Your task to perform on an android device: Search for Mexican restaurants on Maps Image 0: 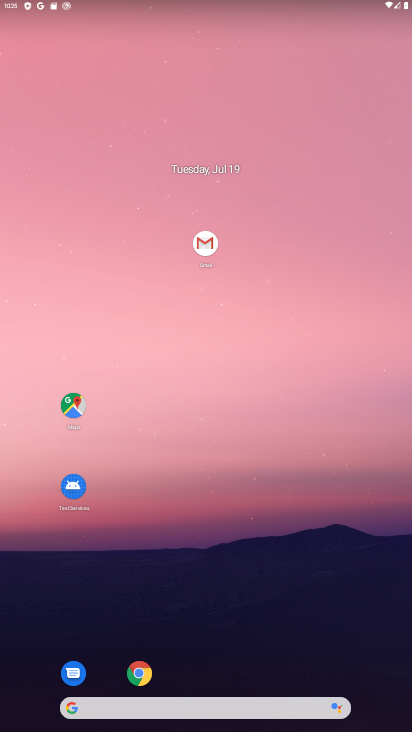
Step 0: click (76, 402)
Your task to perform on an android device: Search for Mexican restaurants on Maps Image 1: 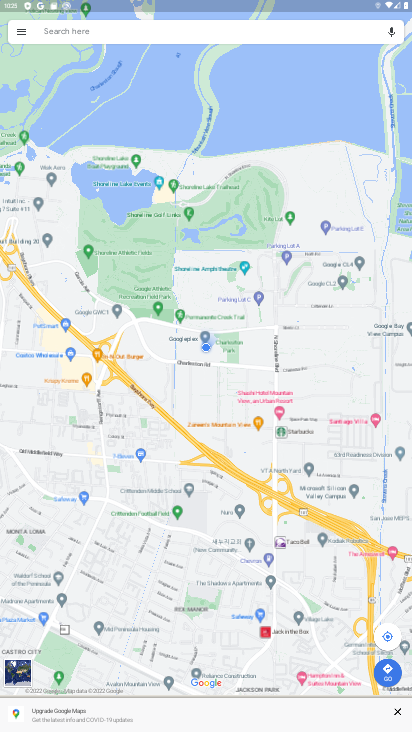
Step 1: click (135, 36)
Your task to perform on an android device: Search for Mexican restaurants on Maps Image 2: 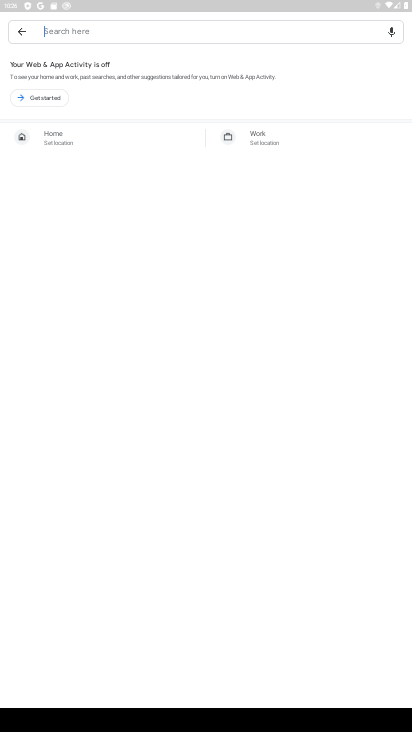
Step 2: type "mexican restaurant"
Your task to perform on an android device: Search for Mexican restaurants on Maps Image 3: 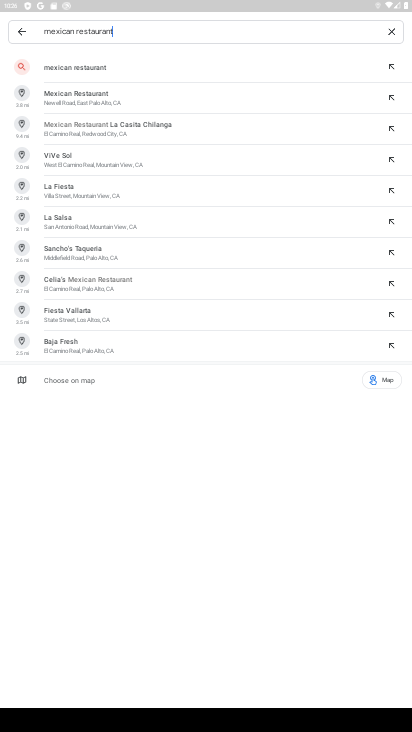
Step 3: click (105, 67)
Your task to perform on an android device: Search for Mexican restaurants on Maps Image 4: 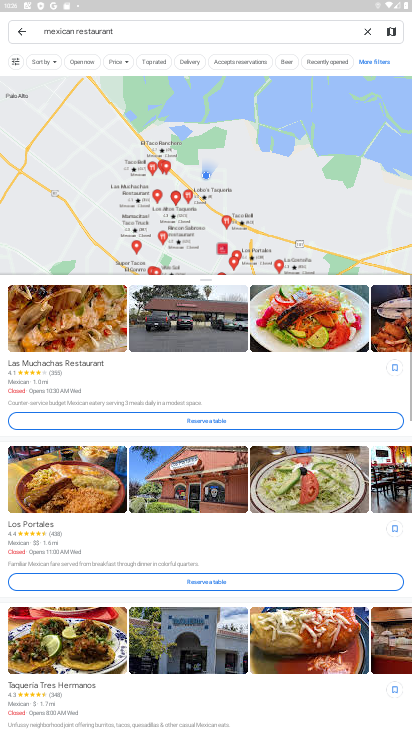
Step 4: task complete